Your task to perform on an android device: Go to Google Image 0: 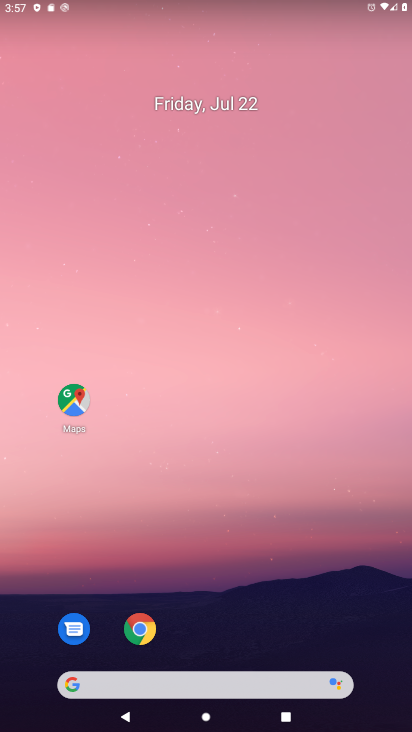
Step 0: drag from (308, 668) to (324, 220)
Your task to perform on an android device: Go to Google Image 1: 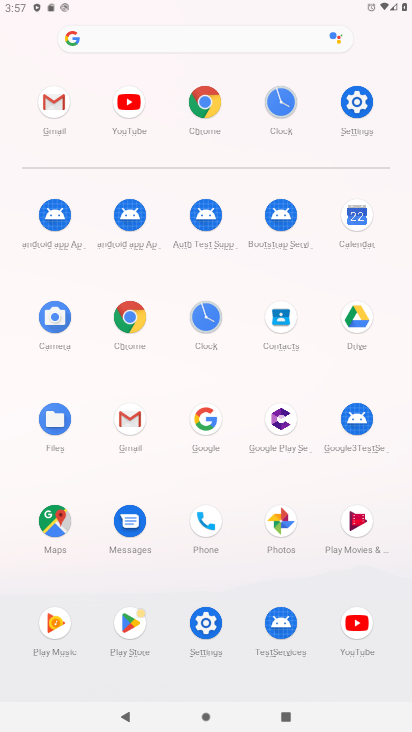
Step 1: click (207, 422)
Your task to perform on an android device: Go to Google Image 2: 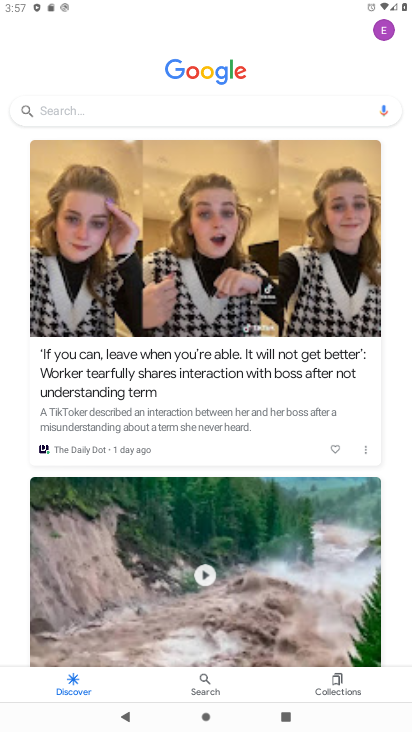
Step 2: task complete